Your task to perform on an android device: Go to location settings Image 0: 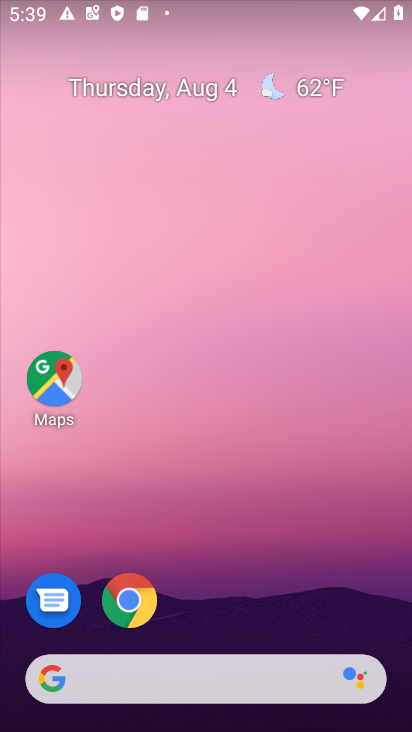
Step 0: drag from (230, 586) to (359, 16)
Your task to perform on an android device: Go to location settings Image 1: 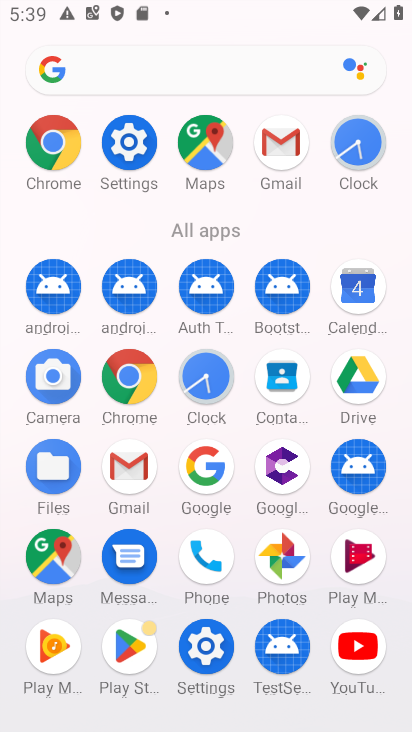
Step 1: click (123, 143)
Your task to perform on an android device: Go to location settings Image 2: 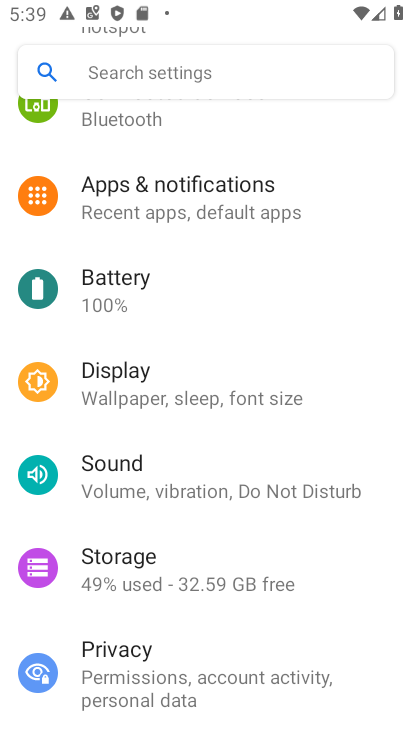
Step 2: drag from (167, 610) to (279, 129)
Your task to perform on an android device: Go to location settings Image 3: 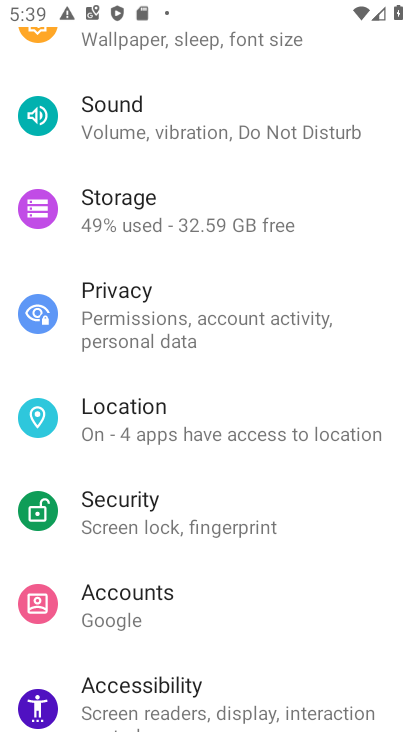
Step 3: click (161, 423)
Your task to perform on an android device: Go to location settings Image 4: 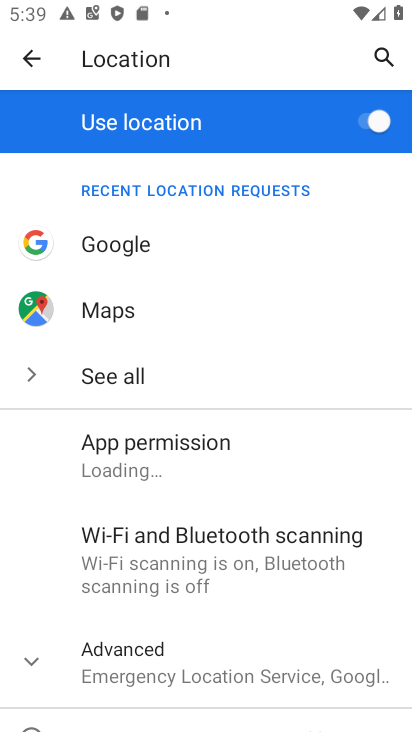
Step 4: task complete